Your task to perform on an android device: check google app version Image 0: 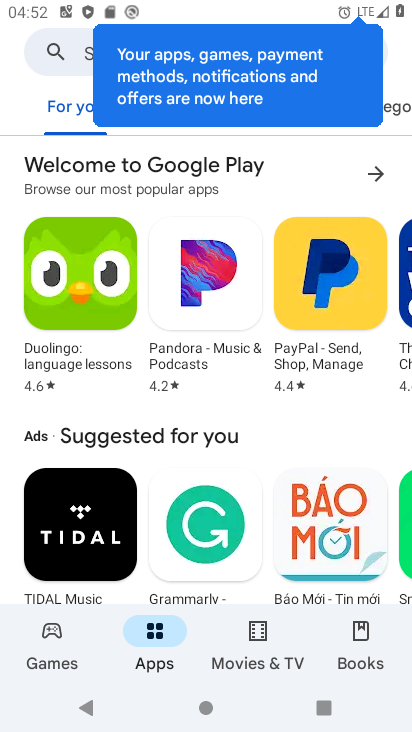
Step 0: press home button
Your task to perform on an android device: check google app version Image 1: 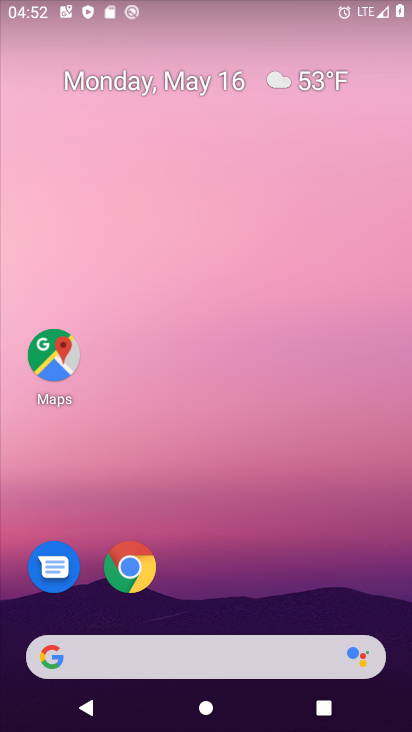
Step 1: drag from (342, 662) to (348, 17)
Your task to perform on an android device: check google app version Image 2: 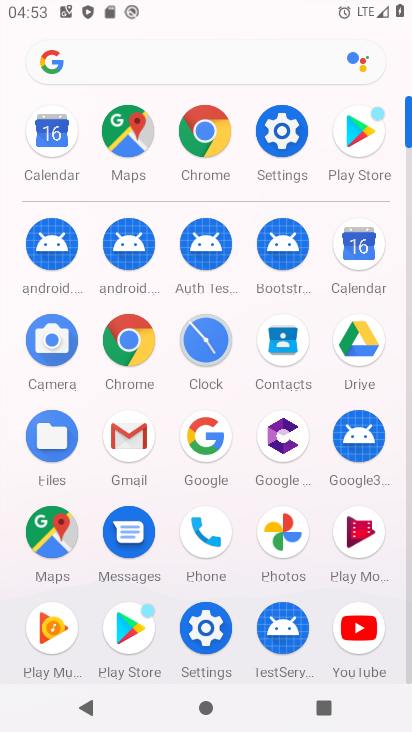
Step 2: click (125, 344)
Your task to perform on an android device: check google app version Image 3: 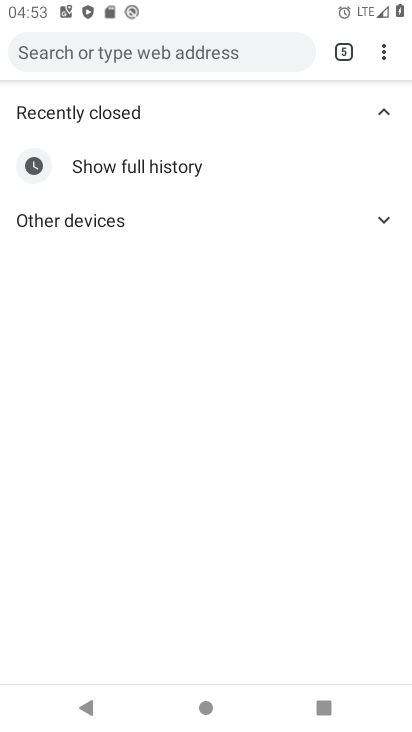
Step 3: click (384, 43)
Your task to perform on an android device: check google app version Image 4: 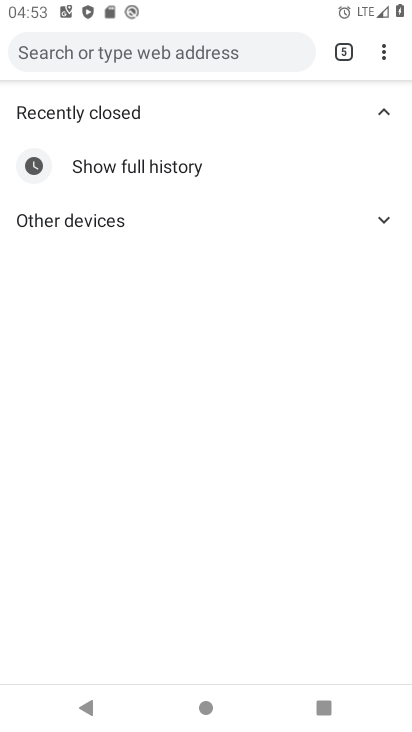
Step 4: drag from (376, 57) to (234, 488)
Your task to perform on an android device: check google app version Image 5: 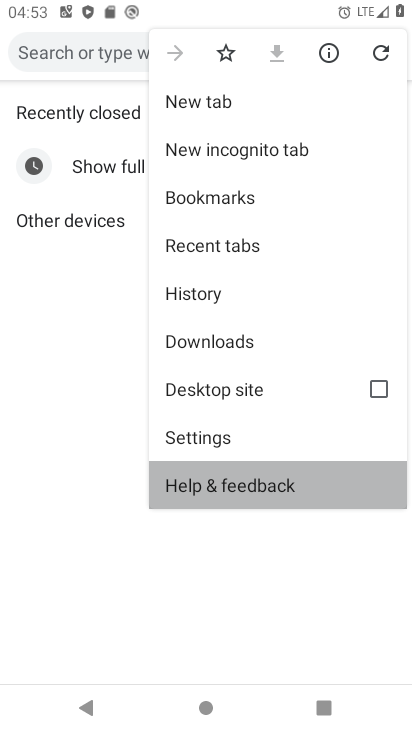
Step 5: click (234, 488)
Your task to perform on an android device: check google app version Image 6: 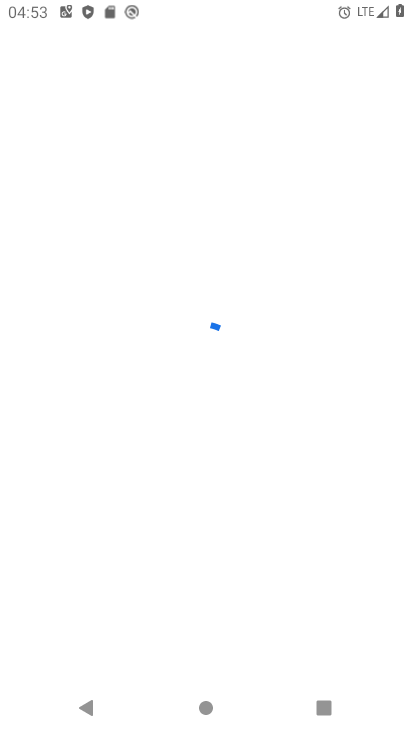
Step 6: click (382, 50)
Your task to perform on an android device: check google app version Image 7: 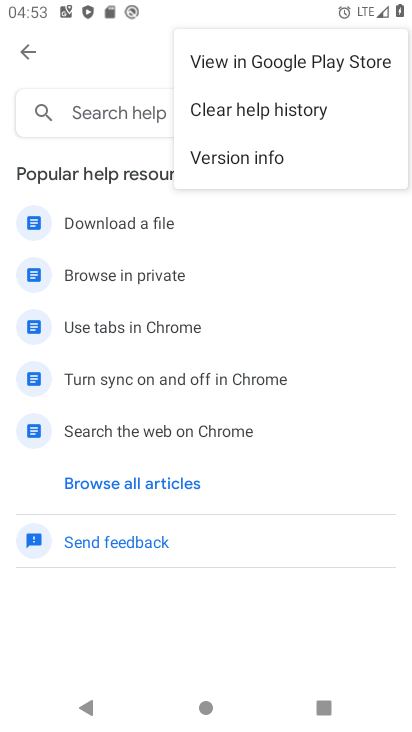
Step 7: click (264, 171)
Your task to perform on an android device: check google app version Image 8: 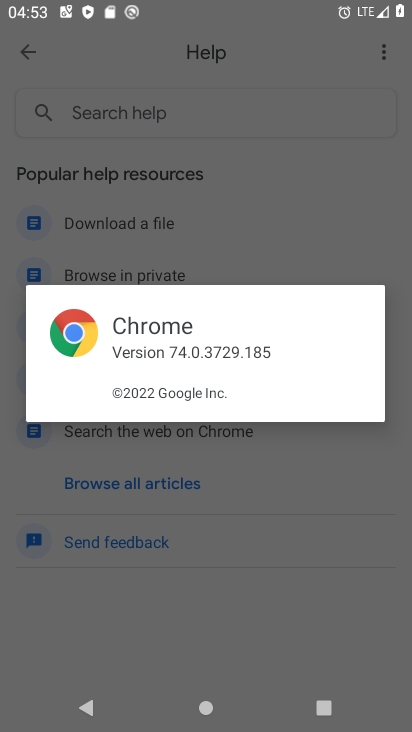
Step 8: task complete